Your task to perform on an android device: refresh tabs in the chrome app Image 0: 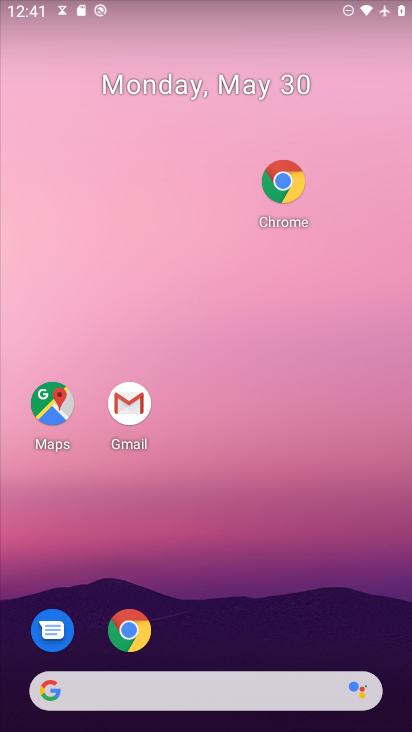
Step 0: drag from (349, 621) to (281, 188)
Your task to perform on an android device: refresh tabs in the chrome app Image 1: 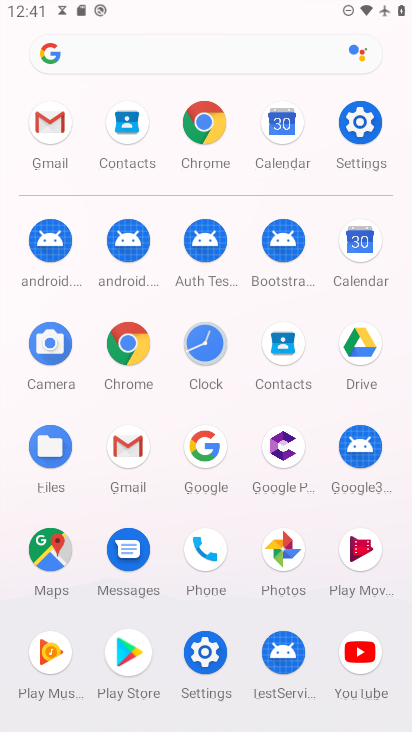
Step 1: click (195, 128)
Your task to perform on an android device: refresh tabs in the chrome app Image 2: 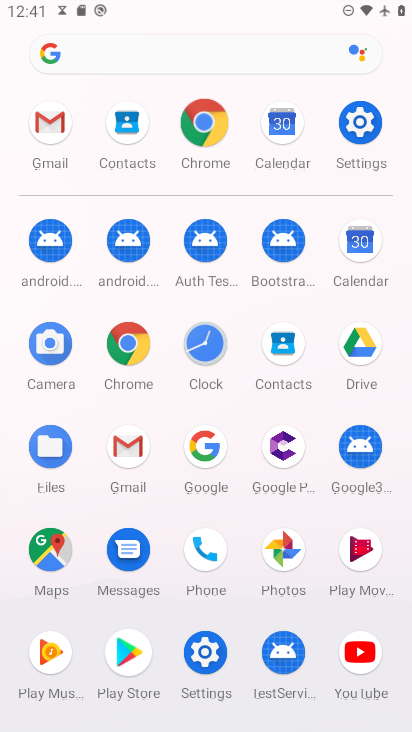
Step 2: click (208, 121)
Your task to perform on an android device: refresh tabs in the chrome app Image 3: 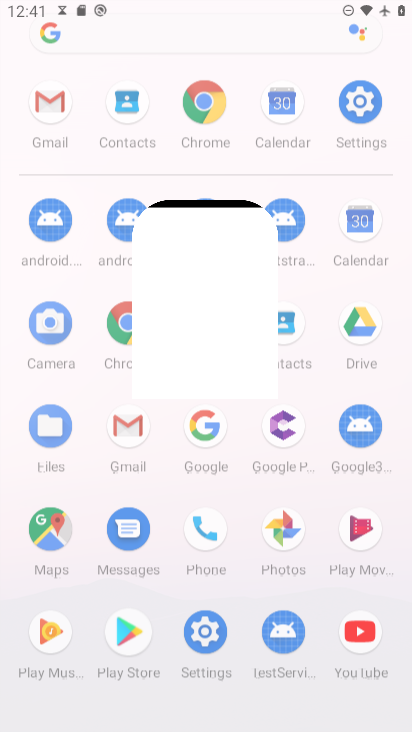
Step 3: click (209, 120)
Your task to perform on an android device: refresh tabs in the chrome app Image 4: 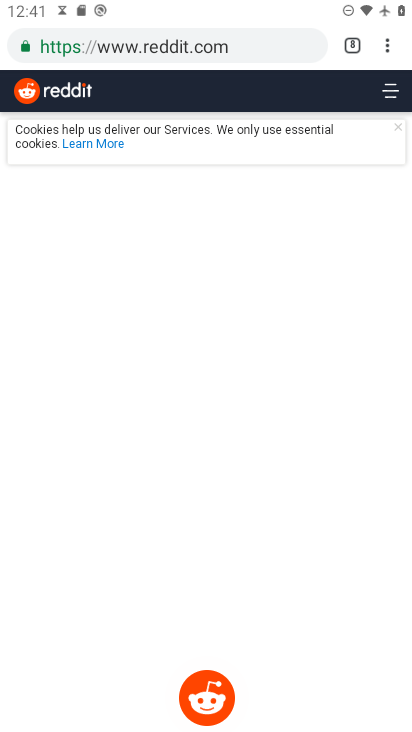
Step 4: click (387, 56)
Your task to perform on an android device: refresh tabs in the chrome app Image 5: 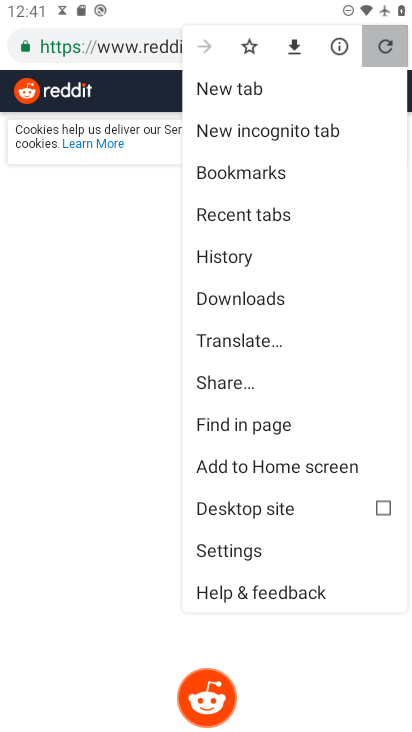
Step 5: click (385, 40)
Your task to perform on an android device: refresh tabs in the chrome app Image 6: 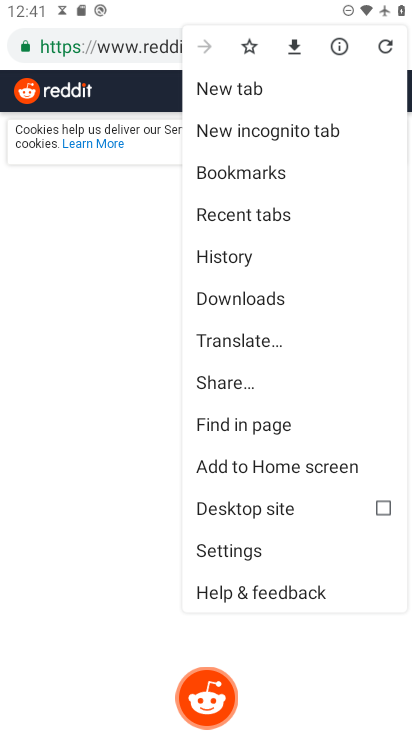
Step 6: task complete